Your task to perform on an android device: change the clock display to analog Image 0: 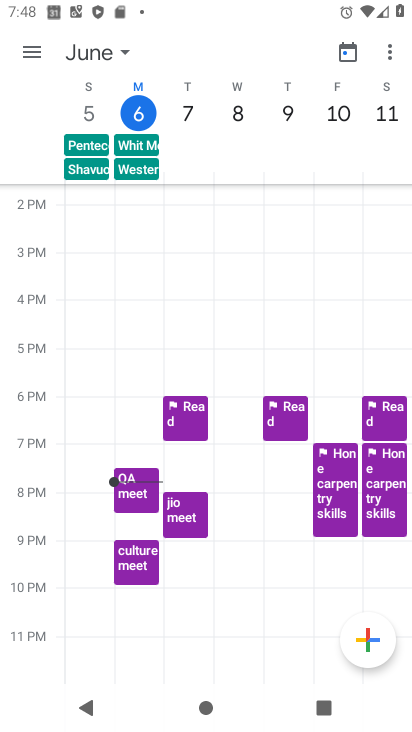
Step 0: press home button
Your task to perform on an android device: change the clock display to analog Image 1: 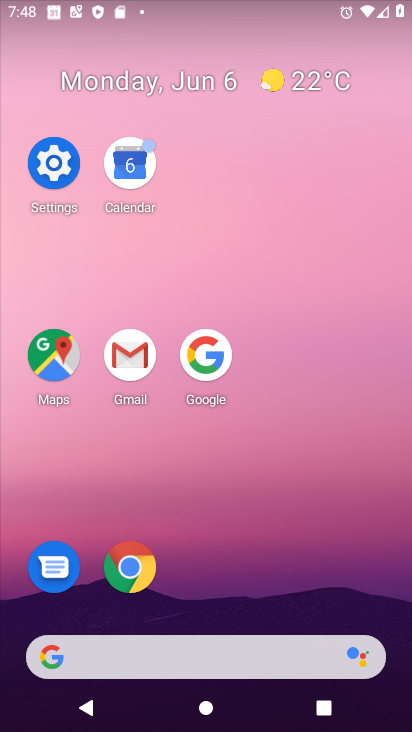
Step 1: drag from (200, 576) to (207, 175)
Your task to perform on an android device: change the clock display to analog Image 2: 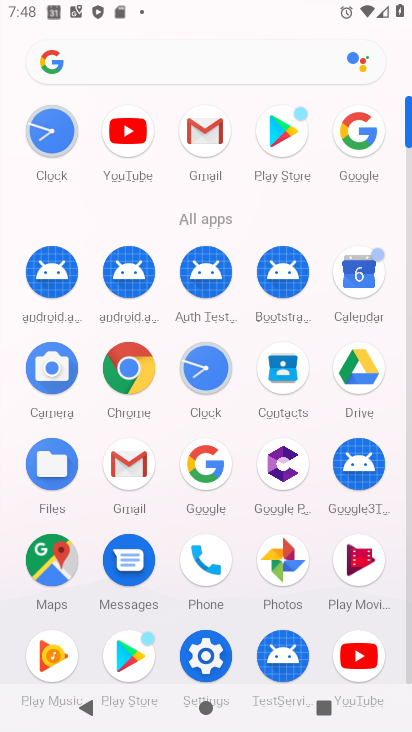
Step 2: drag from (197, 377) to (194, 196)
Your task to perform on an android device: change the clock display to analog Image 3: 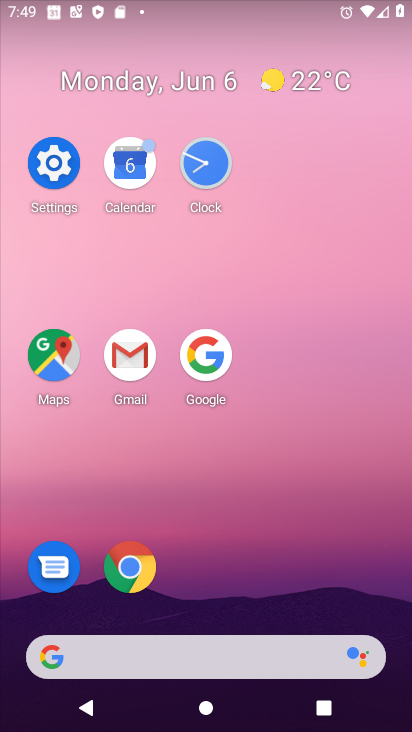
Step 3: click (194, 161)
Your task to perform on an android device: change the clock display to analog Image 4: 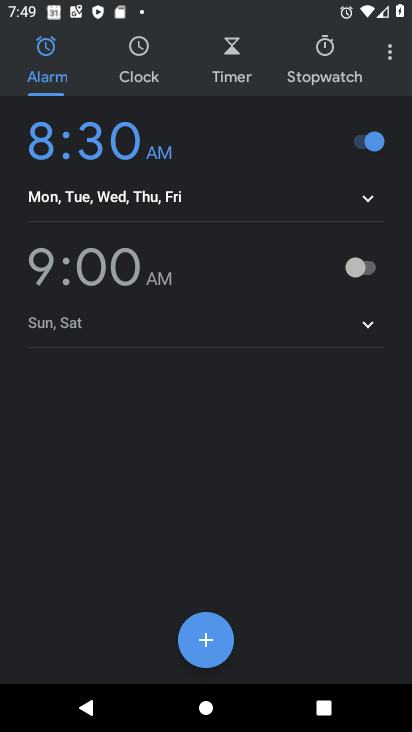
Step 4: click (377, 51)
Your task to perform on an android device: change the clock display to analog Image 5: 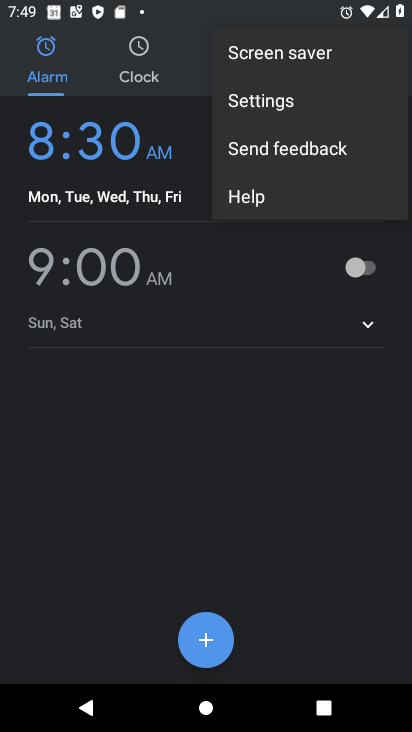
Step 5: click (298, 92)
Your task to perform on an android device: change the clock display to analog Image 6: 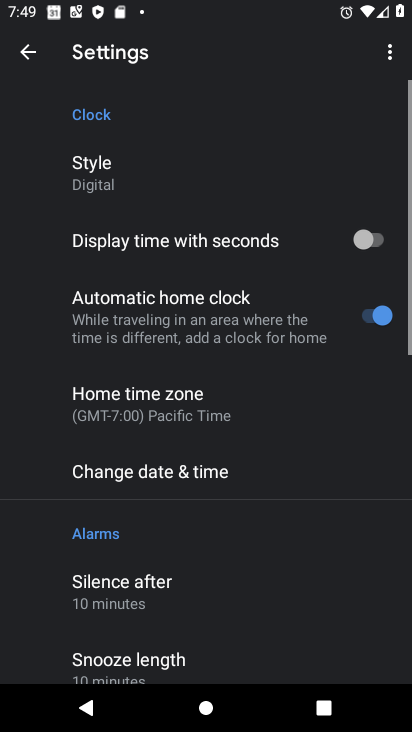
Step 6: click (172, 174)
Your task to perform on an android device: change the clock display to analog Image 7: 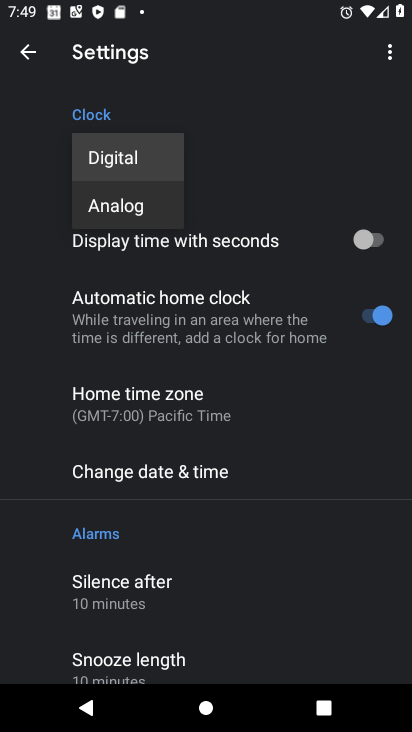
Step 7: click (142, 200)
Your task to perform on an android device: change the clock display to analog Image 8: 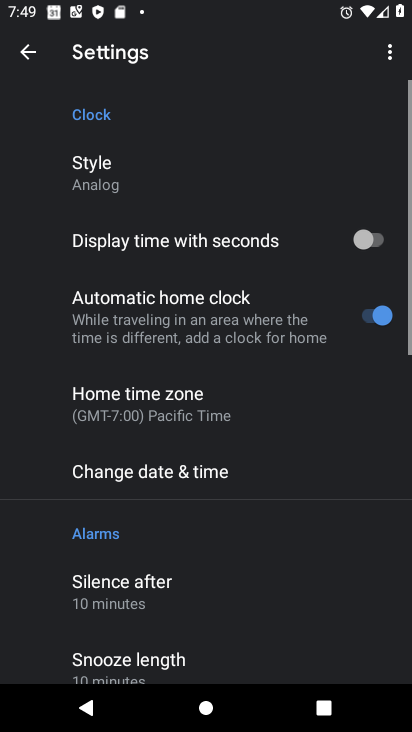
Step 8: task complete